Your task to perform on an android device: turn on sleep mode Image 0: 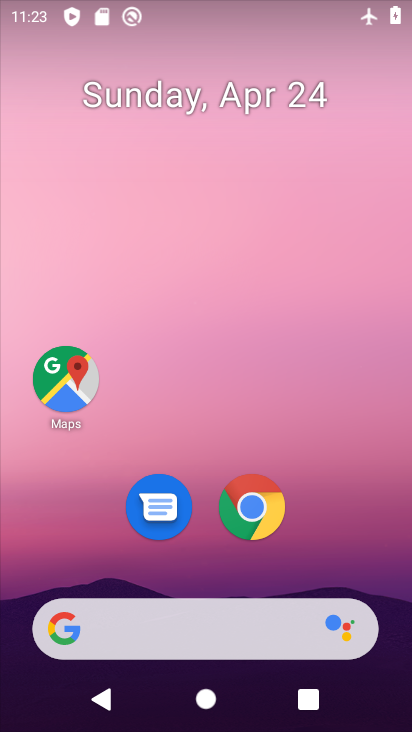
Step 0: drag from (332, 531) to (256, 121)
Your task to perform on an android device: turn on sleep mode Image 1: 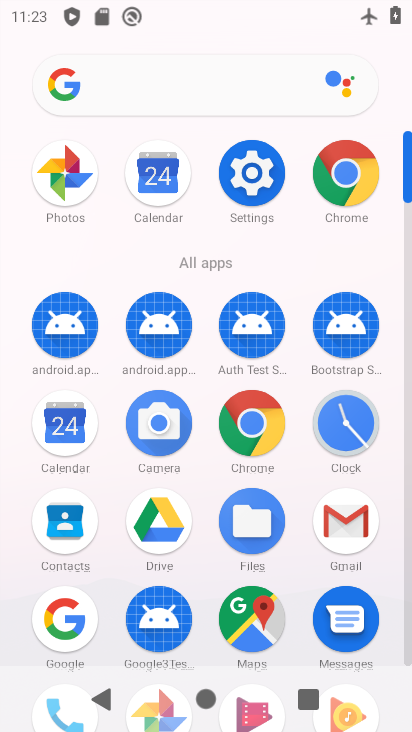
Step 1: drag from (17, 533) to (15, 237)
Your task to perform on an android device: turn on sleep mode Image 2: 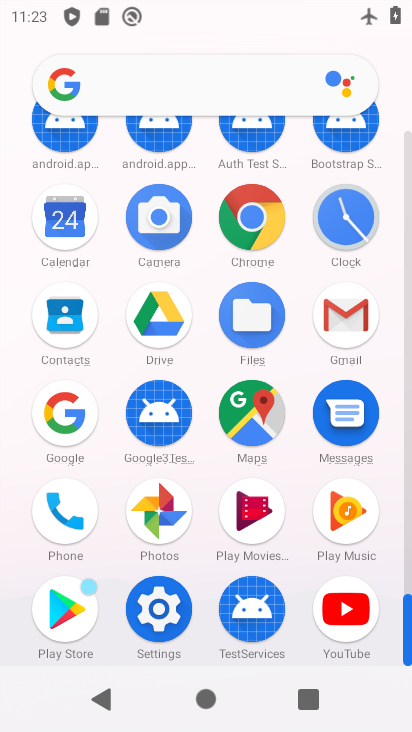
Step 2: click (157, 605)
Your task to perform on an android device: turn on sleep mode Image 3: 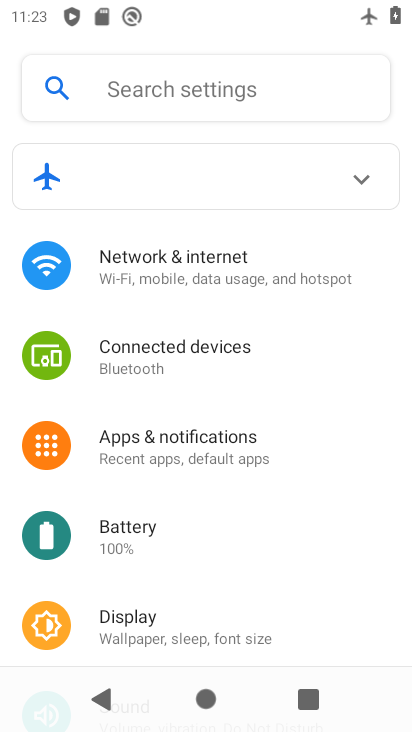
Step 3: click (212, 615)
Your task to perform on an android device: turn on sleep mode Image 4: 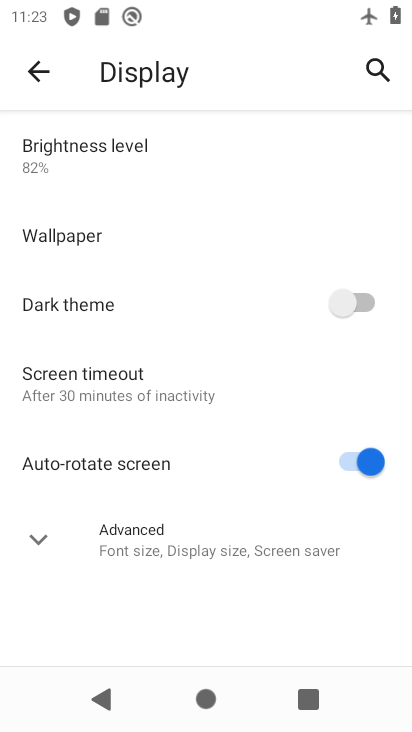
Step 4: click (45, 524)
Your task to perform on an android device: turn on sleep mode Image 5: 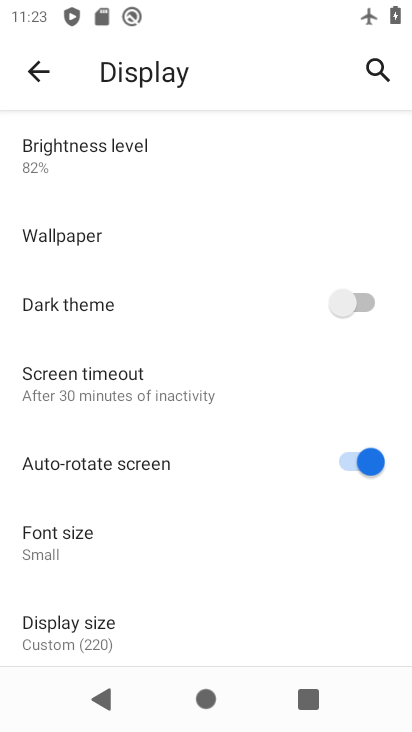
Step 5: task complete